Your task to perform on an android device: Go to Android settings Image 0: 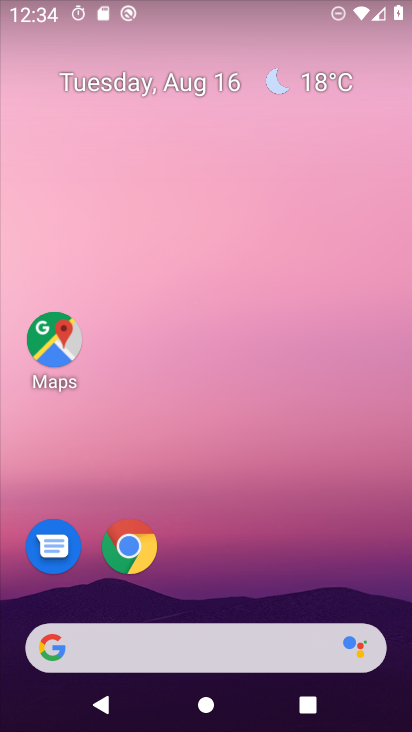
Step 0: drag from (215, 552) to (222, 85)
Your task to perform on an android device: Go to Android settings Image 1: 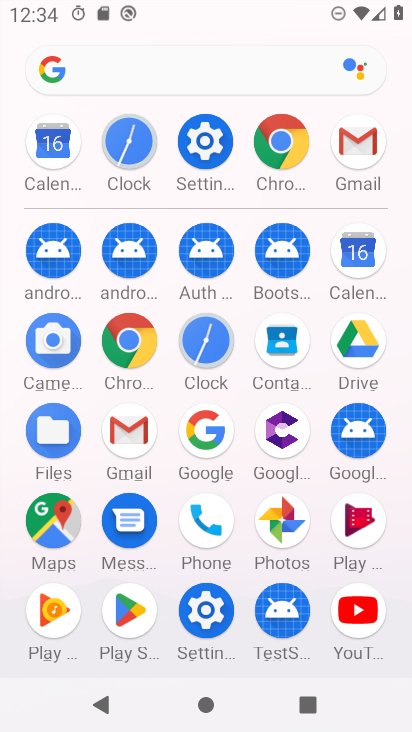
Step 1: click (213, 143)
Your task to perform on an android device: Go to Android settings Image 2: 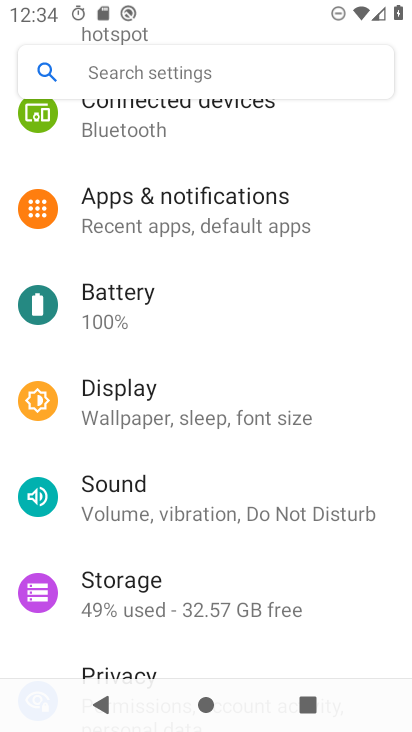
Step 2: task complete